Your task to perform on an android device: Search for vegetarian restaurants on Maps Image 0: 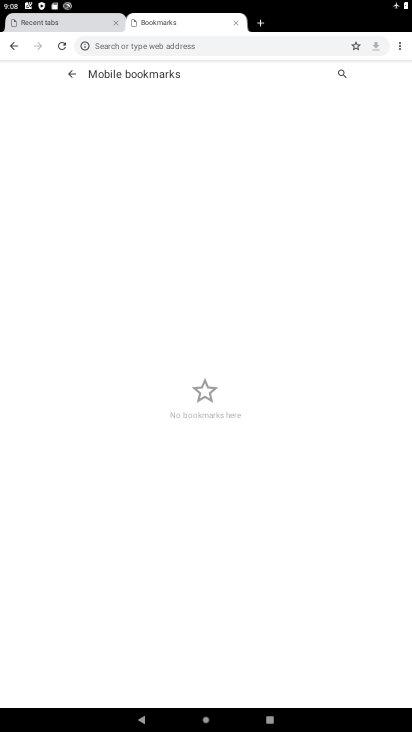
Step 0: press home button
Your task to perform on an android device: Search for vegetarian restaurants on Maps Image 1: 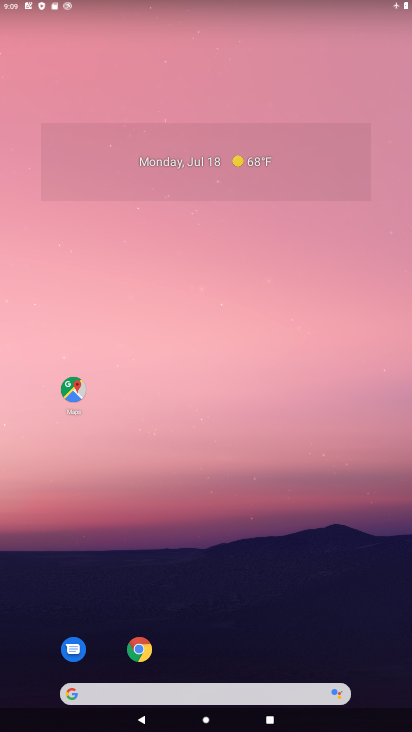
Step 1: click (86, 391)
Your task to perform on an android device: Search for vegetarian restaurants on Maps Image 2: 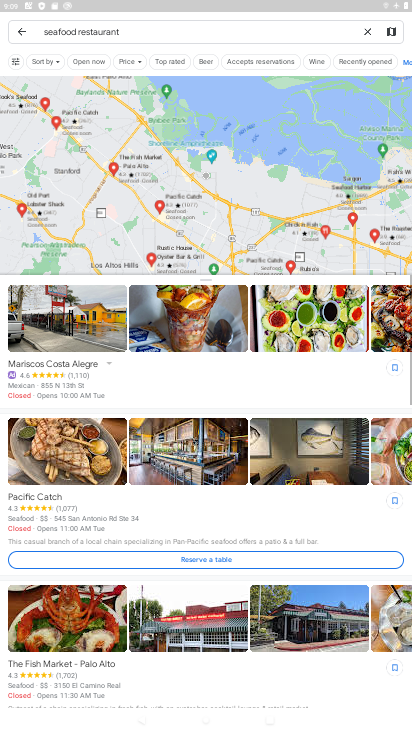
Step 2: click (364, 35)
Your task to perform on an android device: Search for vegetarian restaurants on Maps Image 3: 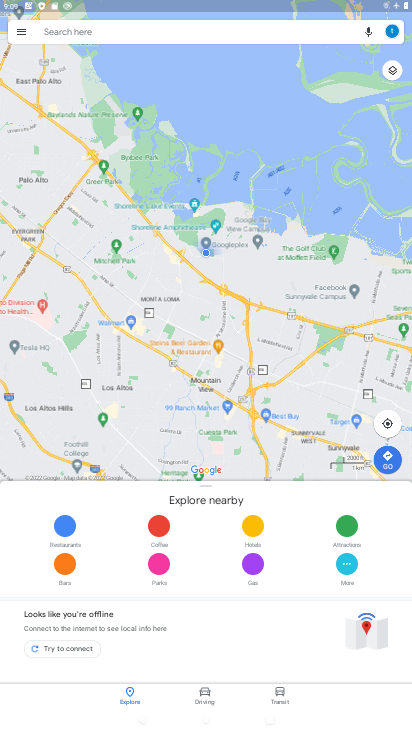
Step 3: click (258, 26)
Your task to perform on an android device: Search for vegetarian restaurants on Maps Image 4: 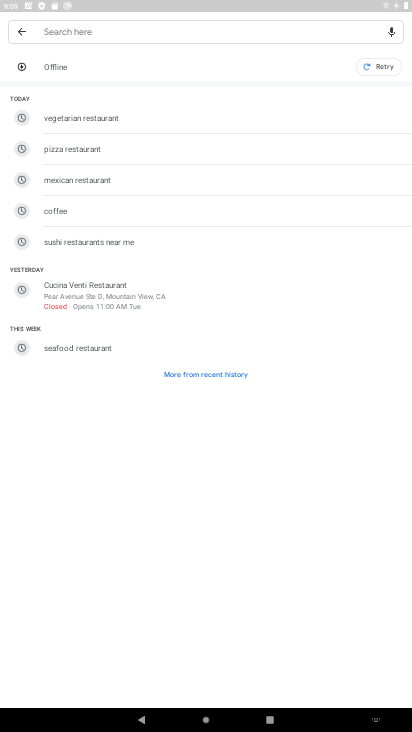
Step 4: click (112, 112)
Your task to perform on an android device: Search for vegetarian restaurants on Maps Image 5: 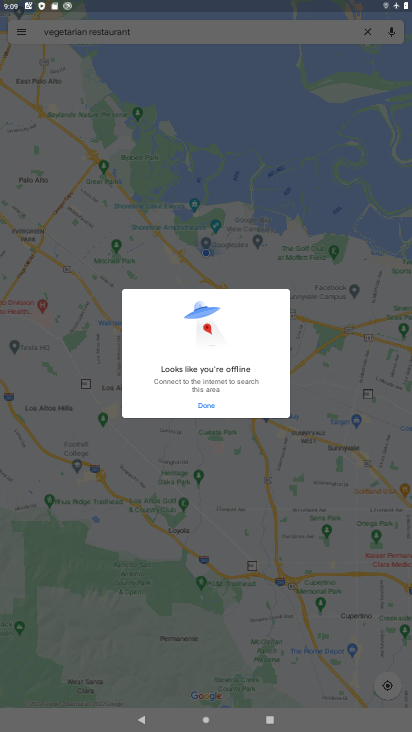
Step 5: task complete